Your task to perform on an android device: turn on priority inbox in the gmail app Image 0: 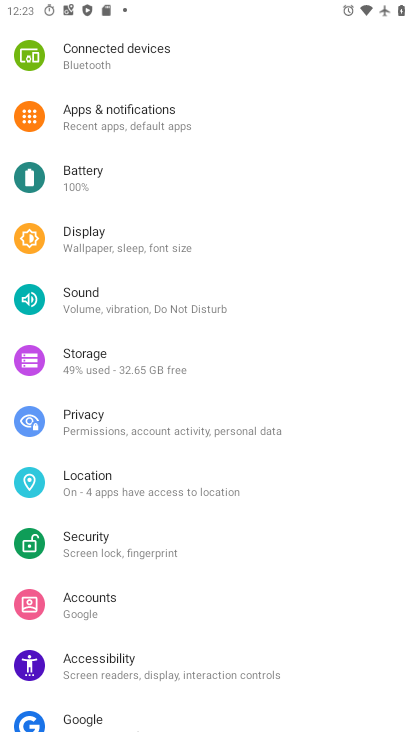
Step 0: press home button
Your task to perform on an android device: turn on priority inbox in the gmail app Image 1: 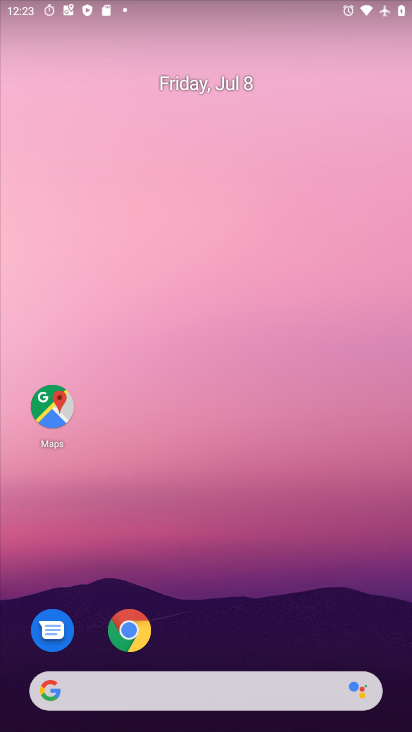
Step 1: drag from (224, 644) to (234, 132)
Your task to perform on an android device: turn on priority inbox in the gmail app Image 2: 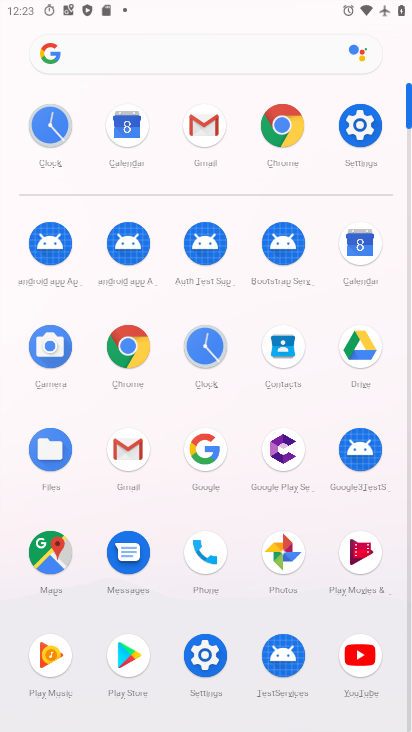
Step 2: click (201, 155)
Your task to perform on an android device: turn on priority inbox in the gmail app Image 3: 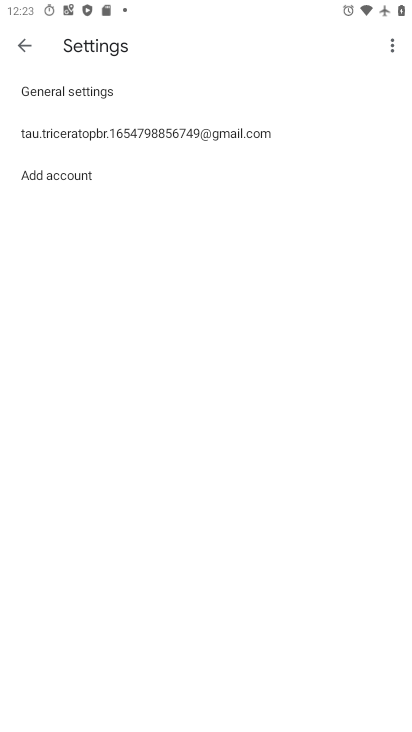
Step 3: click (50, 137)
Your task to perform on an android device: turn on priority inbox in the gmail app Image 4: 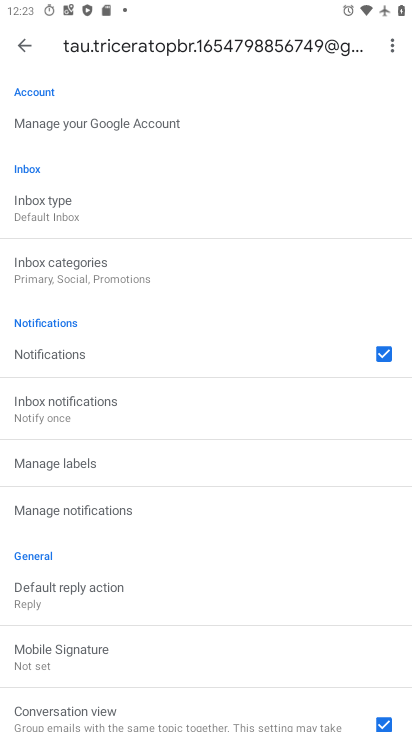
Step 4: click (74, 213)
Your task to perform on an android device: turn on priority inbox in the gmail app Image 5: 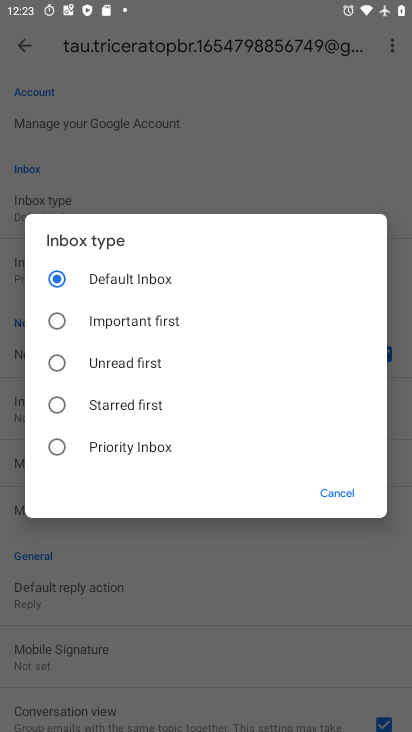
Step 5: click (96, 441)
Your task to perform on an android device: turn on priority inbox in the gmail app Image 6: 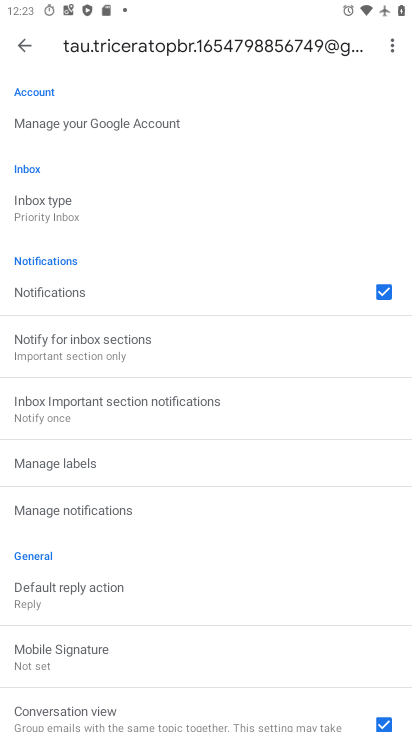
Step 6: task complete